Your task to perform on an android device: Open Google Chrome and open the bookmarks view Image 0: 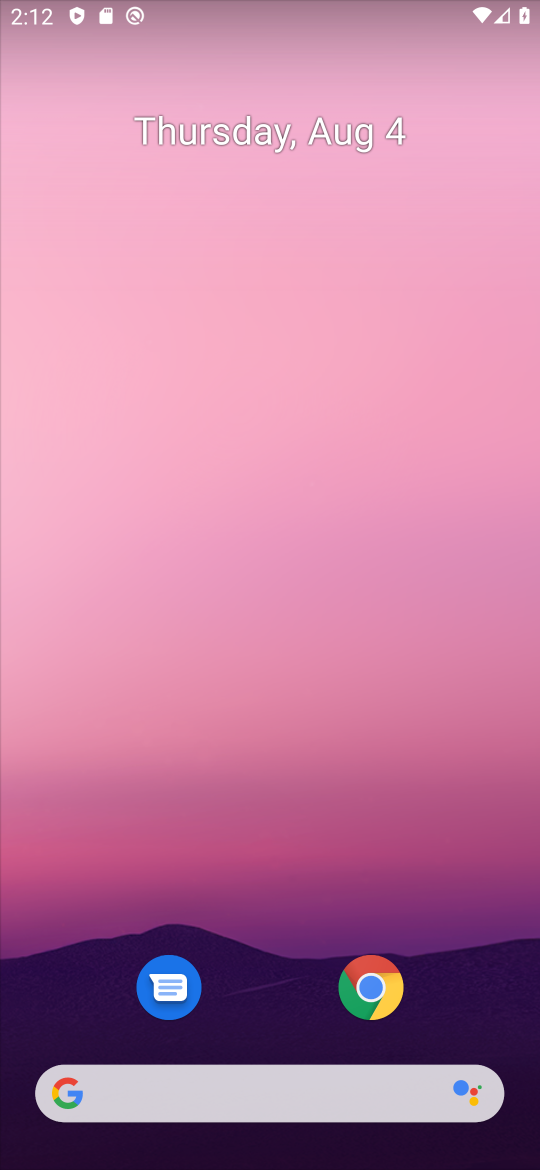
Step 0: drag from (496, 984) to (351, 43)
Your task to perform on an android device: Open Google Chrome and open the bookmarks view Image 1: 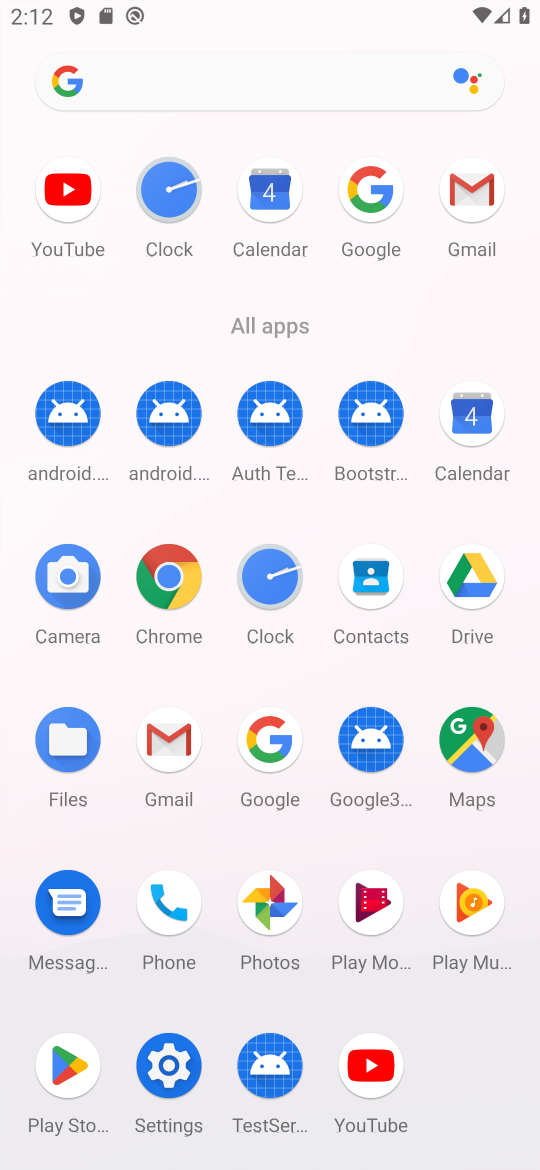
Step 1: click (174, 588)
Your task to perform on an android device: Open Google Chrome and open the bookmarks view Image 2: 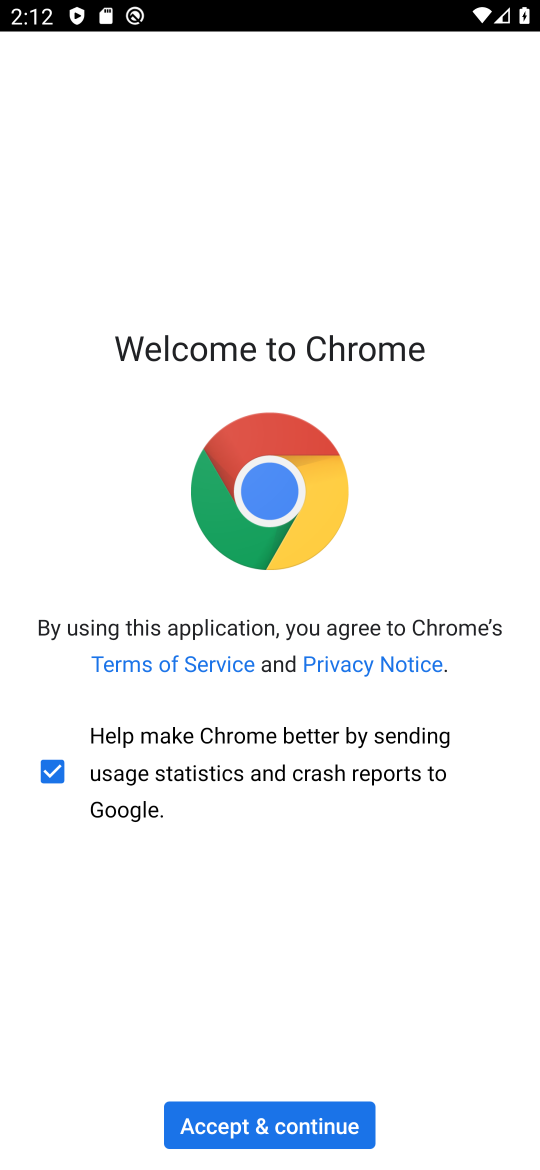
Step 2: click (242, 1128)
Your task to perform on an android device: Open Google Chrome and open the bookmarks view Image 3: 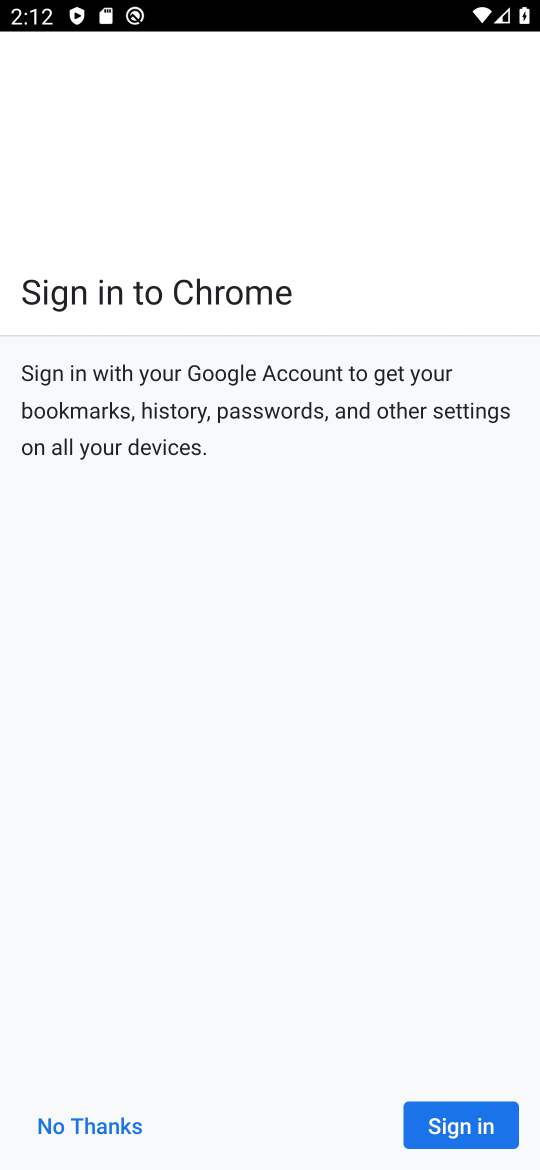
Step 3: click (420, 1114)
Your task to perform on an android device: Open Google Chrome and open the bookmarks view Image 4: 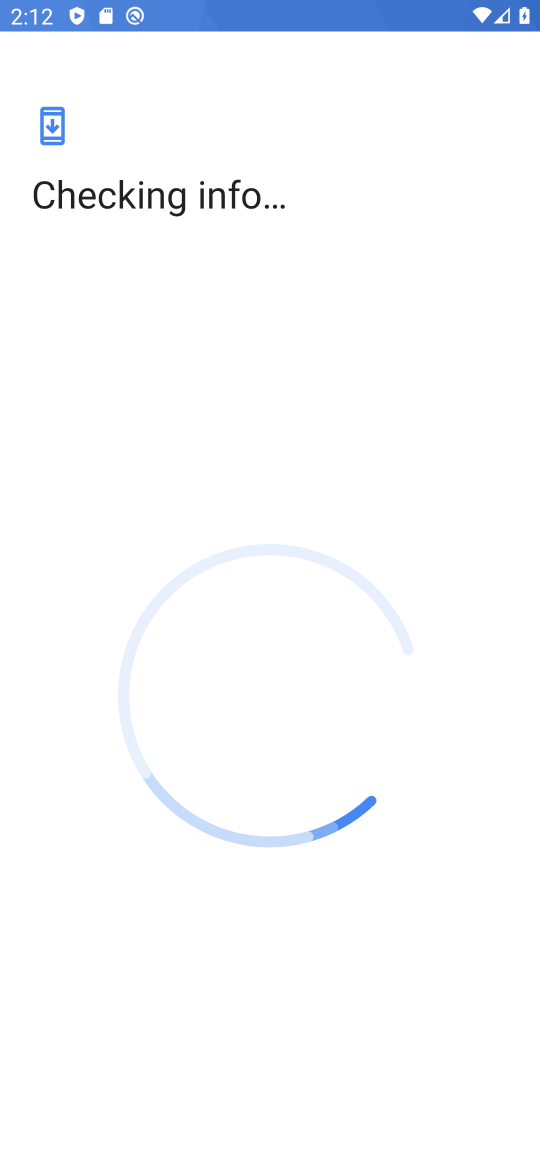
Step 4: task complete